Your task to perform on an android device: allow cookies in the chrome app Image 0: 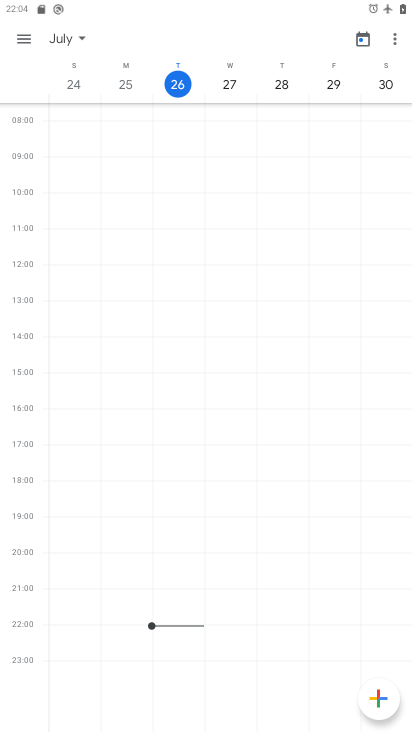
Step 0: press home button
Your task to perform on an android device: allow cookies in the chrome app Image 1: 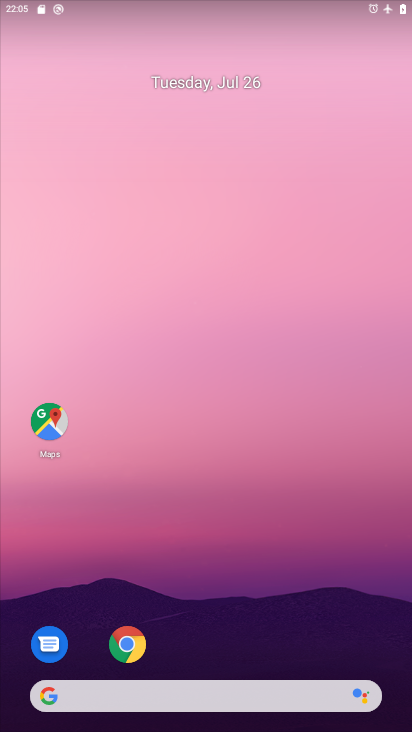
Step 1: drag from (202, 632) to (232, 235)
Your task to perform on an android device: allow cookies in the chrome app Image 2: 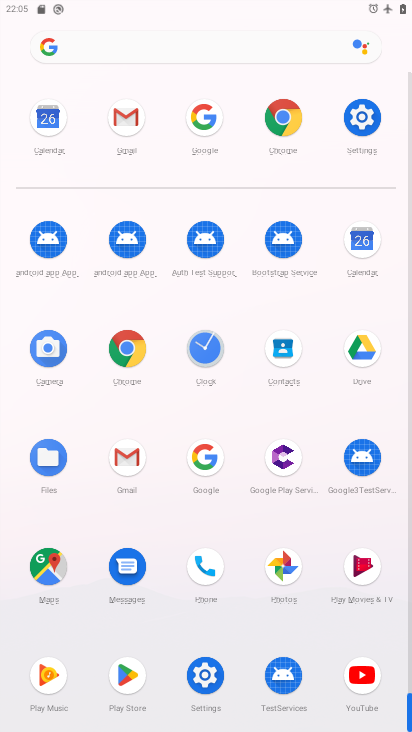
Step 2: click (278, 117)
Your task to perform on an android device: allow cookies in the chrome app Image 3: 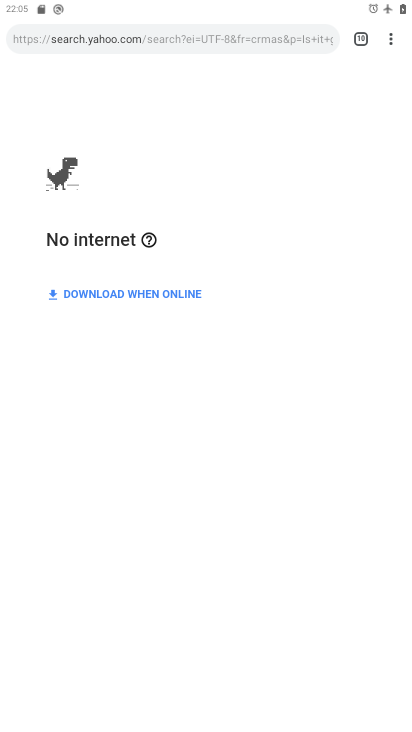
Step 3: click (393, 39)
Your task to perform on an android device: allow cookies in the chrome app Image 4: 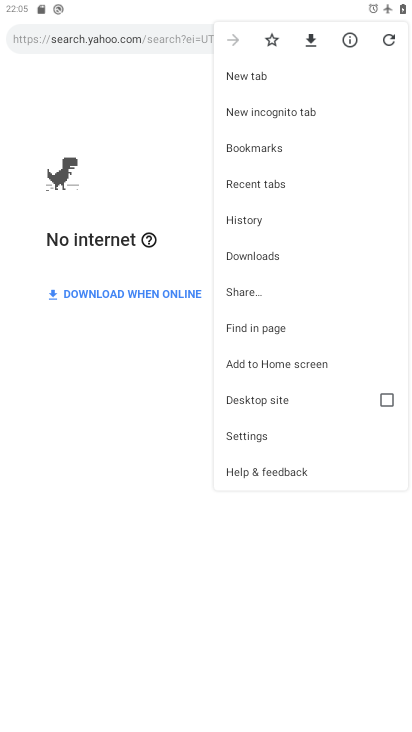
Step 4: click (262, 437)
Your task to perform on an android device: allow cookies in the chrome app Image 5: 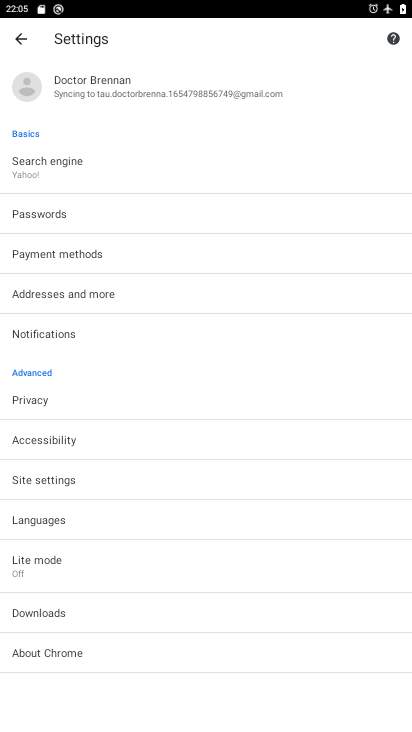
Step 5: click (76, 469)
Your task to perform on an android device: allow cookies in the chrome app Image 6: 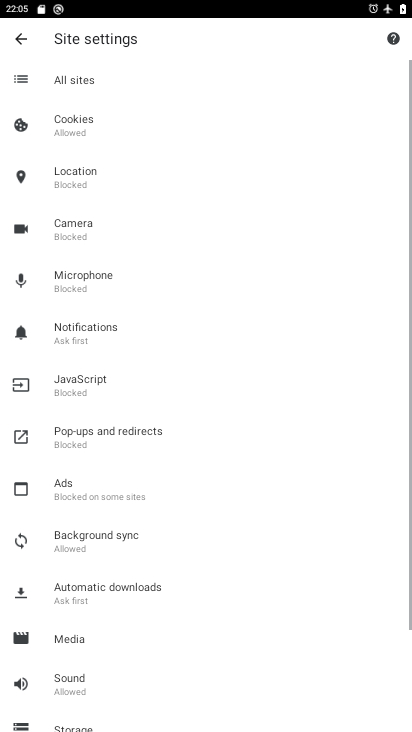
Step 6: click (62, 131)
Your task to perform on an android device: allow cookies in the chrome app Image 7: 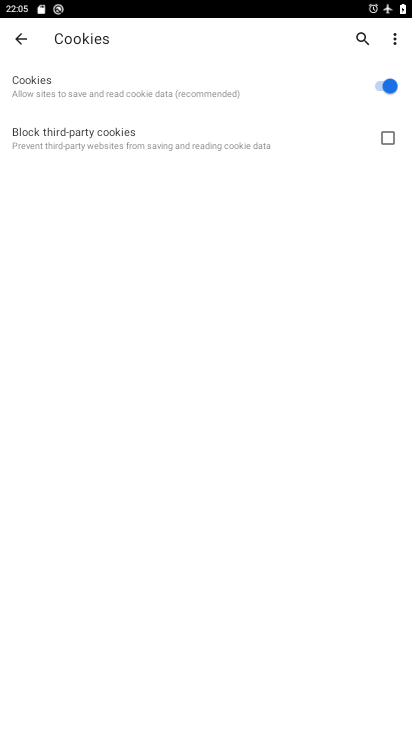
Step 7: task complete